Your task to perform on an android device: Open Google Chrome Image 0: 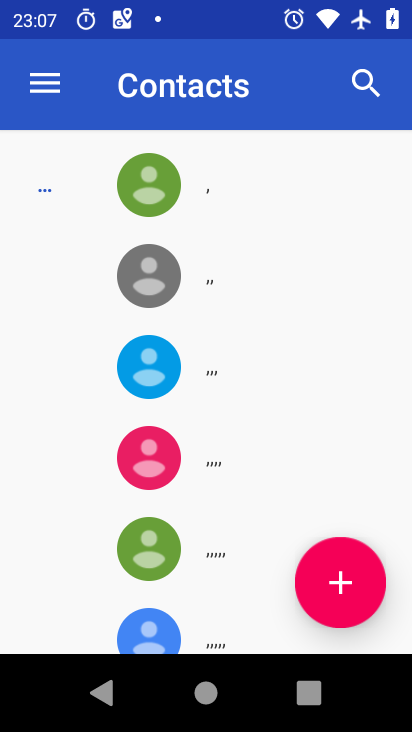
Step 0: drag from (236, 482) to (288, 129)
Your task to perform on an android device: Open Google Chrome Image 1: 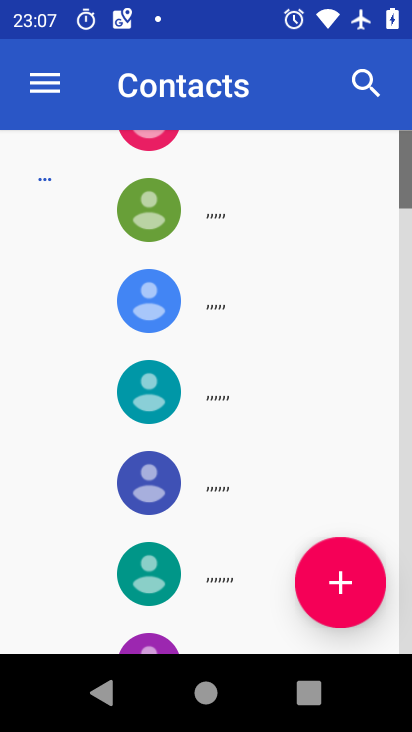
Step 1: press home button
Your task to perform on an android device: Open Google Chrome Image 2: 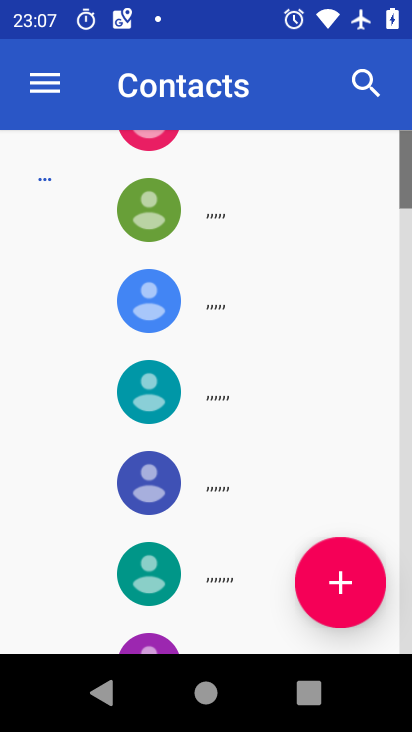
Step 2: press home button
Your task to perform on an android device: Open Google Chrome Image 3: 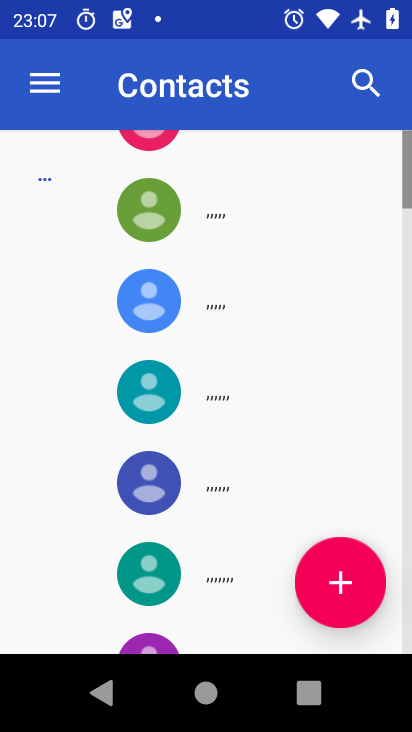
Step 3: drag from (207, 399) to (256, 147)
Your task to perform on an android device: Open Google Chrome Image 4: 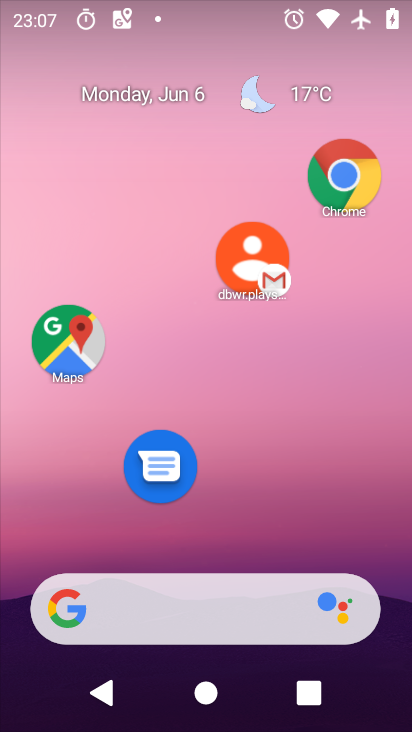
Step 4: drag from (223, 525) to (231, 170)
Your task to perform on an android device: Open Google Chrome Image 5: 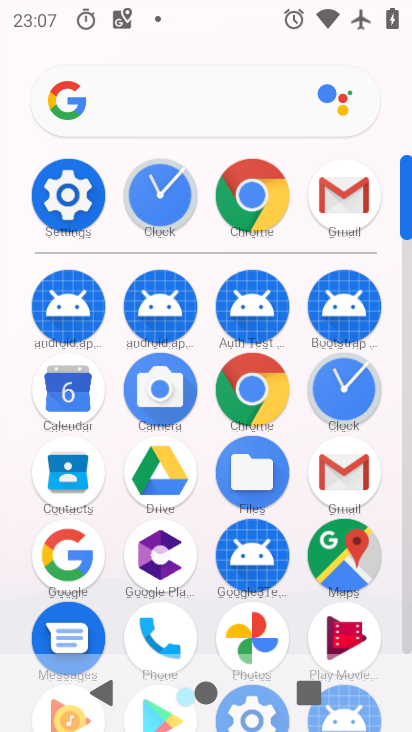
Step 5: click (257, 190)
Your task to perform on an android device: Open Google Chrome Image 6: 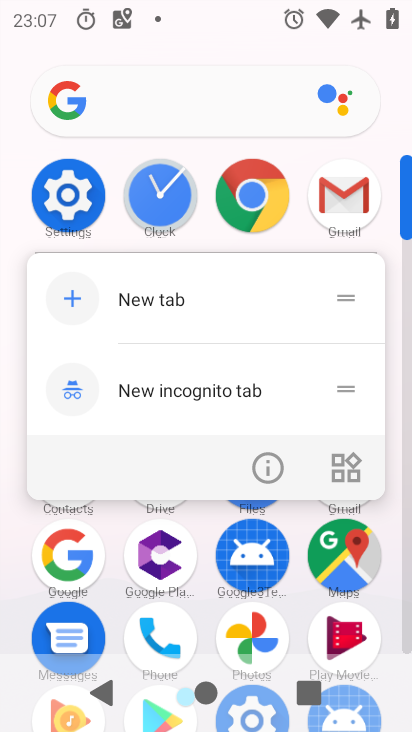
Step 6: click (274, 453)
Your task to perform on an android device: Open Google Chrome Image 7: 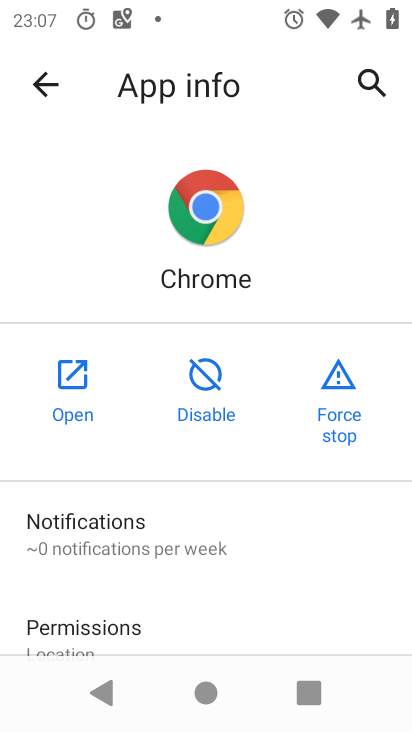
Step 7: click (70, 379)
Your task to perform on an android device: Open Google Chrome Image 8: 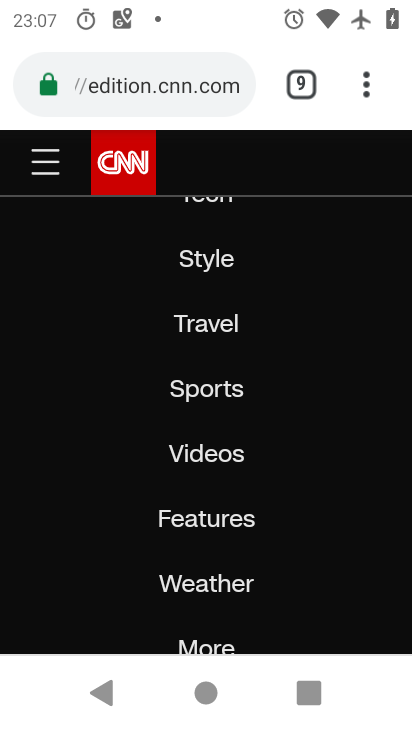
Step 8: task complete